Your task to perform on an android device: Search for hotels in Zurich Image 0: 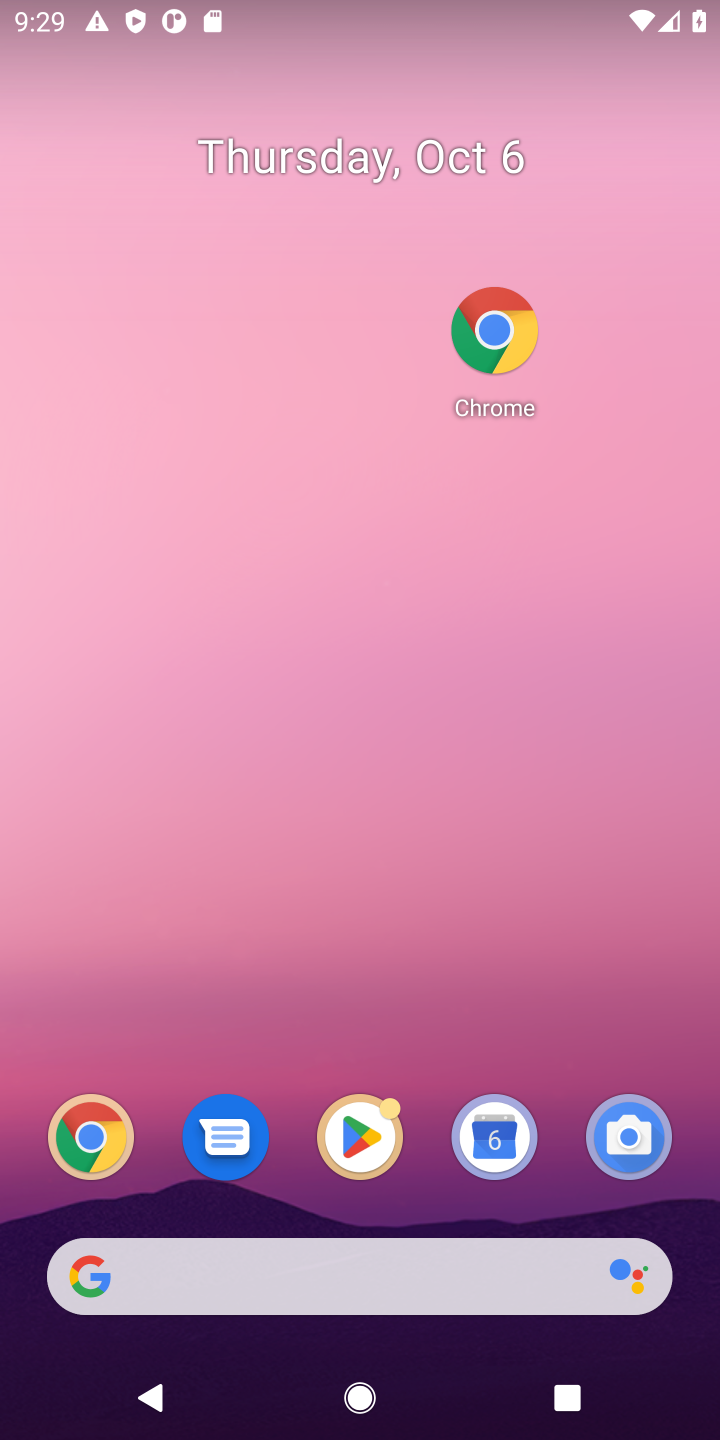
Step 0: click (79, 1132)
Your task to perform on an android device: Search for hotels in Zurich Image 1: 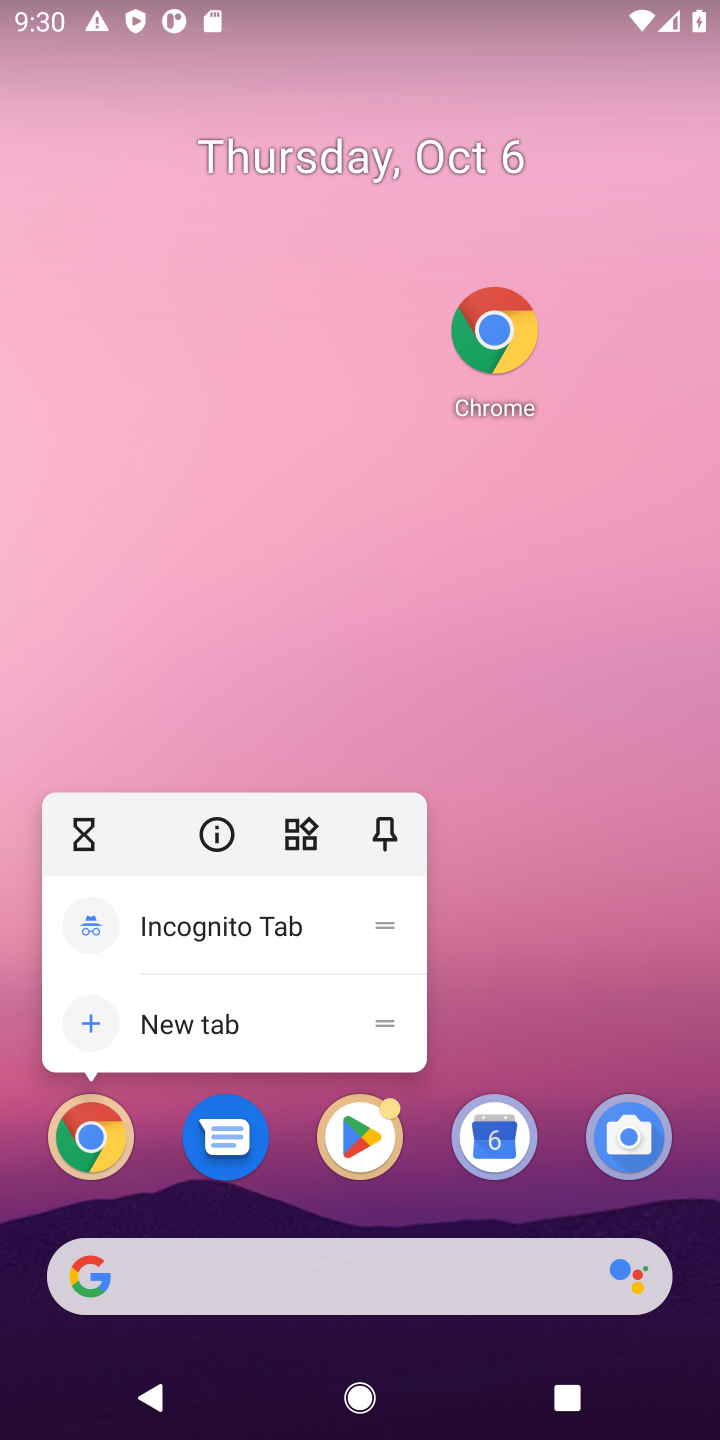
Step 1: click (93, 1143)
Your task to perform on an android device: Search for hotels in Zurich Image 2: 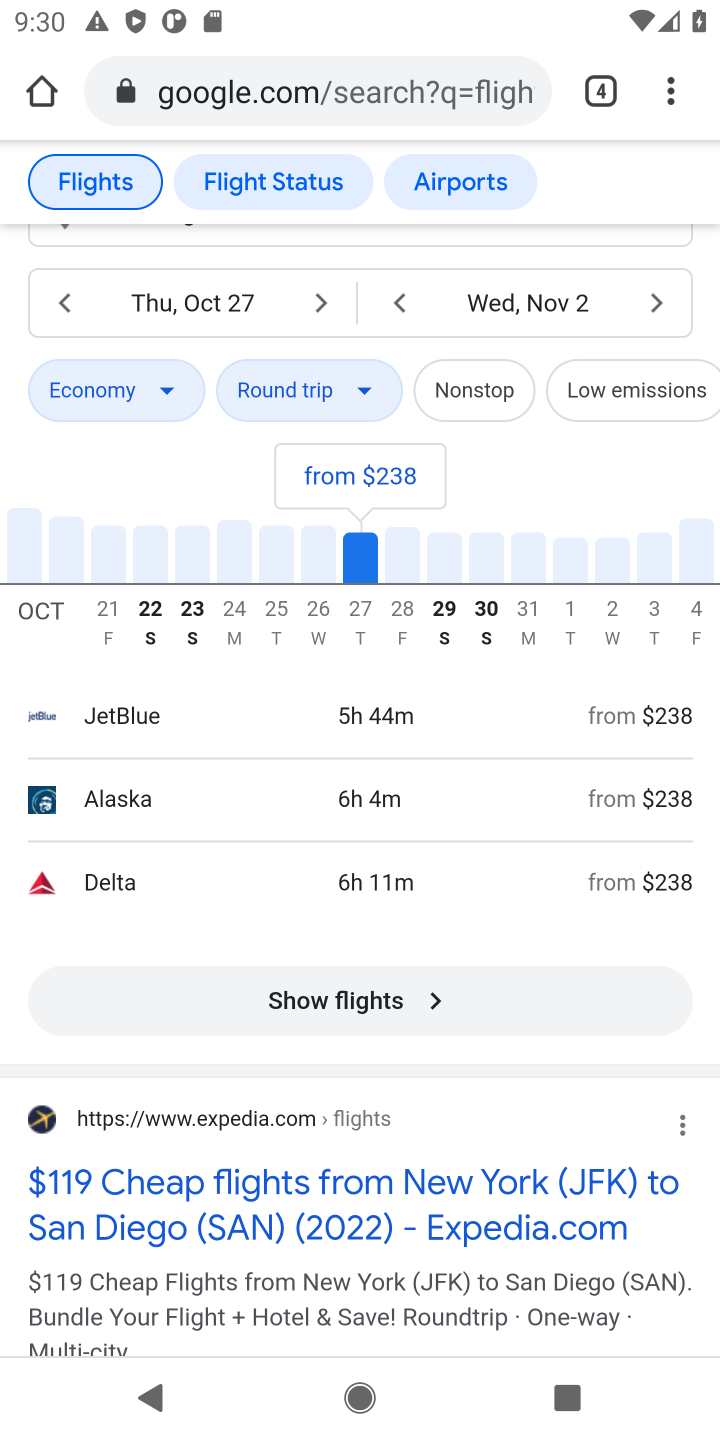
Step 2: click (334, 96)
Your task to perform on an android device: Search for hotels in Zurich Image 3: 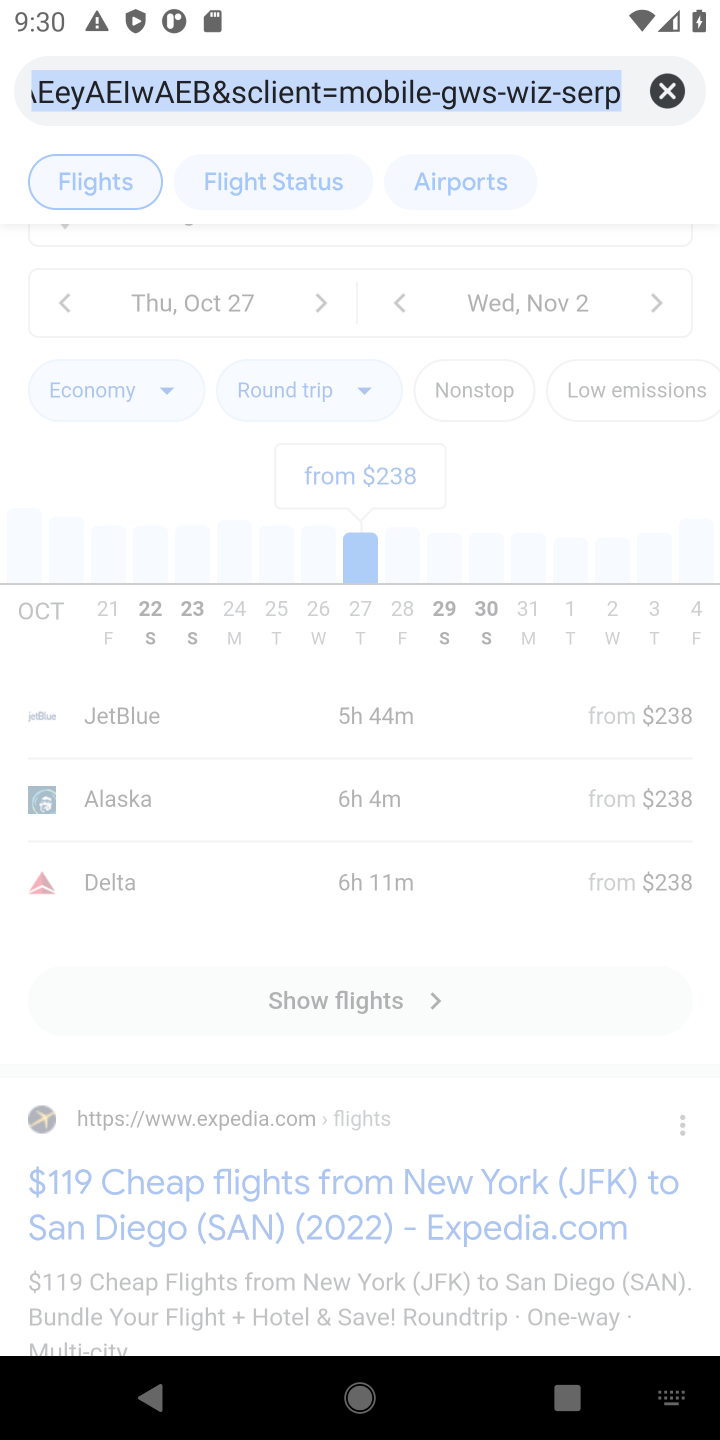
Step 3: click (666, 98)
Your task to perform on an android device: Search for hotels in Zurich Image 4: 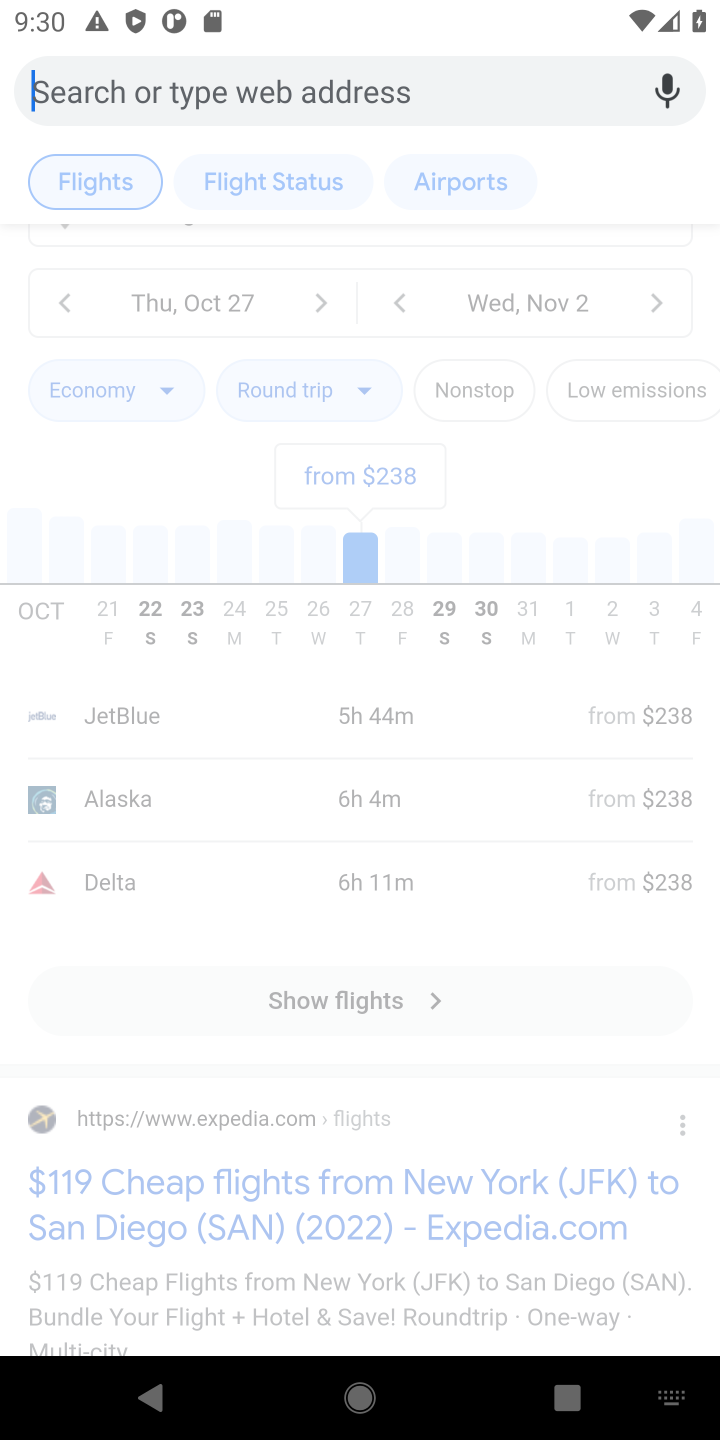
Step 4: type "hotels in Zurich"
Your task to perform on an android device: Search for hotels in Zurich Image 5: 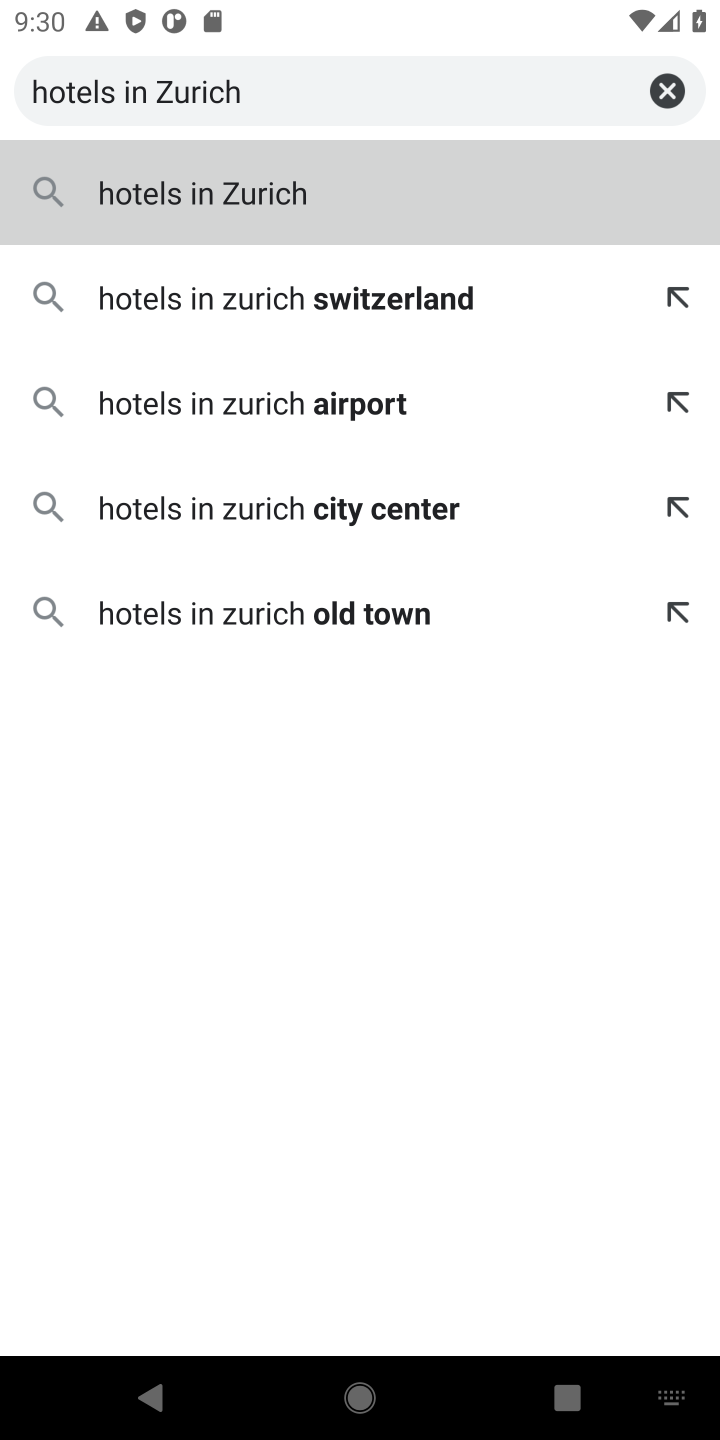
Step 5: click (174, 203)
Your task to perform on an android device: Search for hotels in Zurich Image 6: 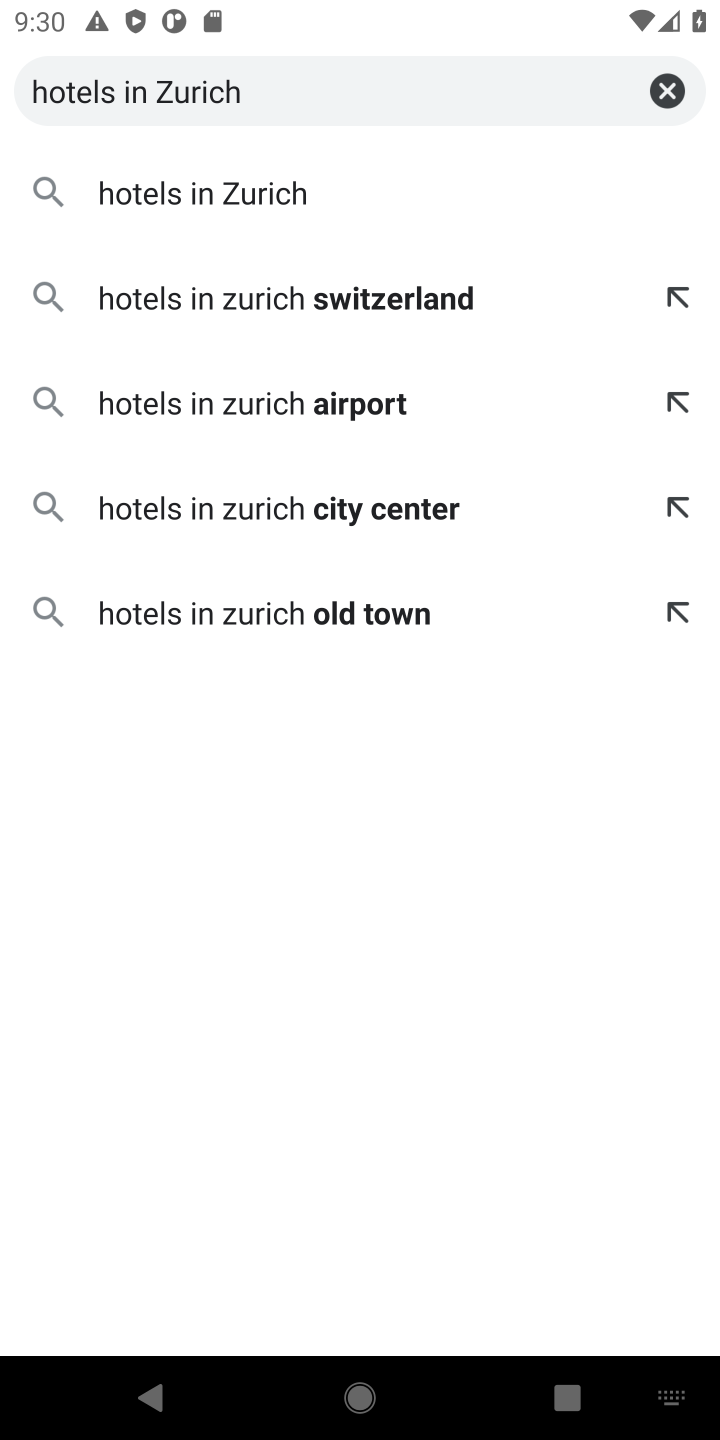
Step 6: click (179, 199)
Your task to perform on an android device: Search for hotels in Zurich Image 7: 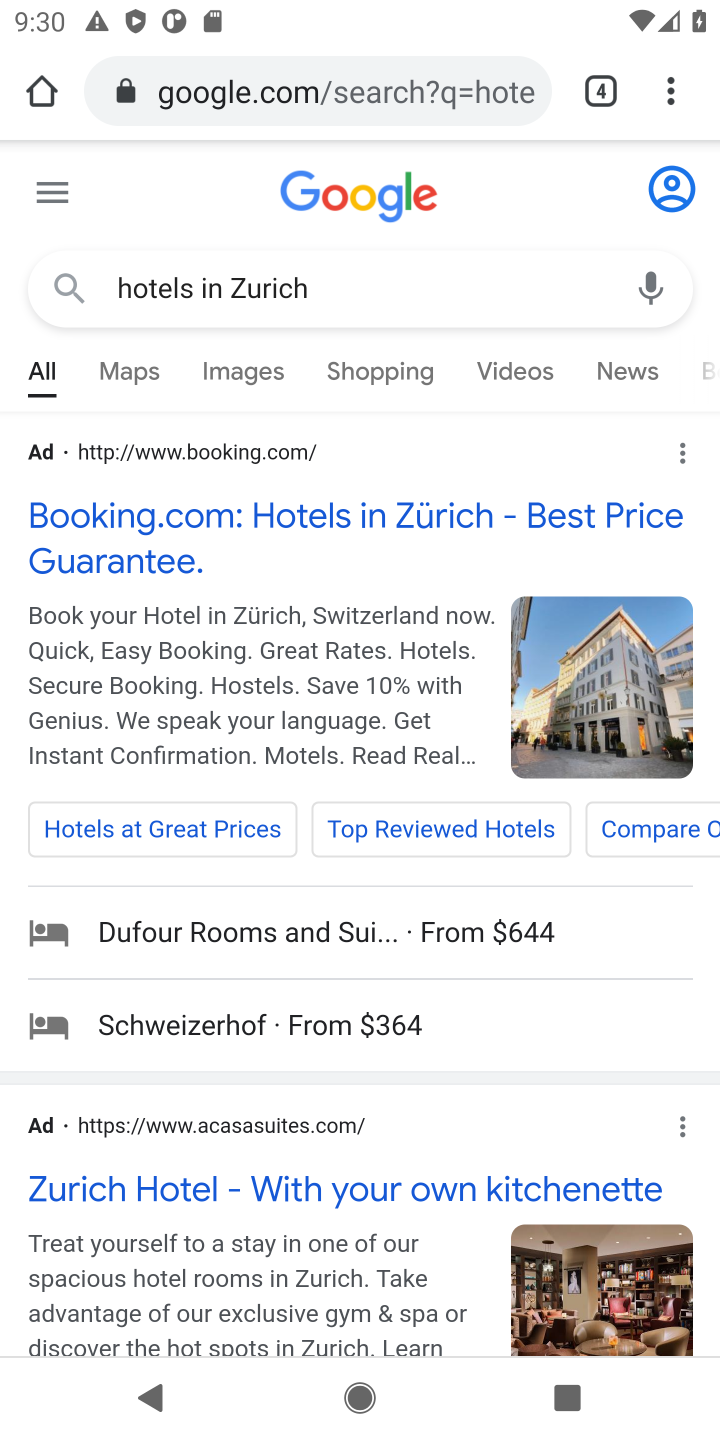
Step 7: click (294, 523)
Your task to perform on an android device: Search for hotels in Zurich Image 8: 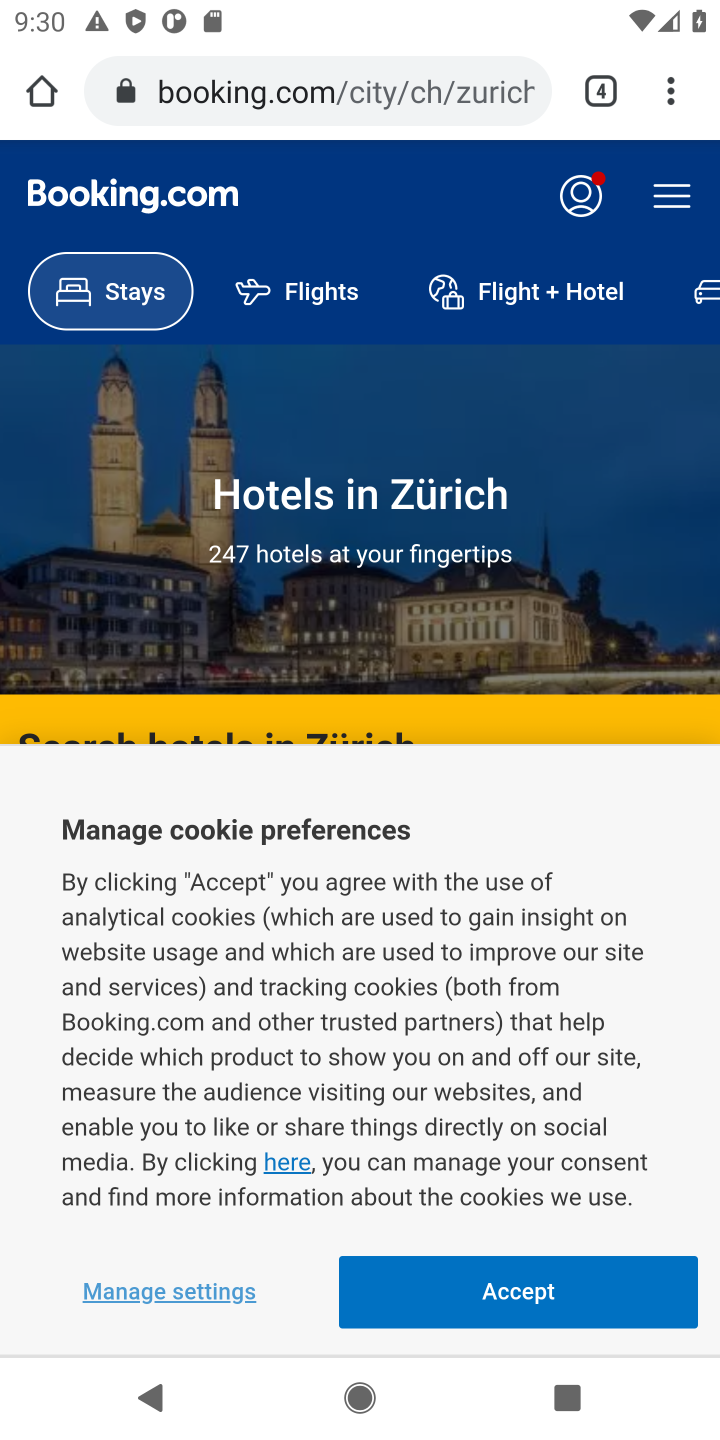
Step 8: task complete